Your task to perform on an android device: turn on airplane mode Image 0: 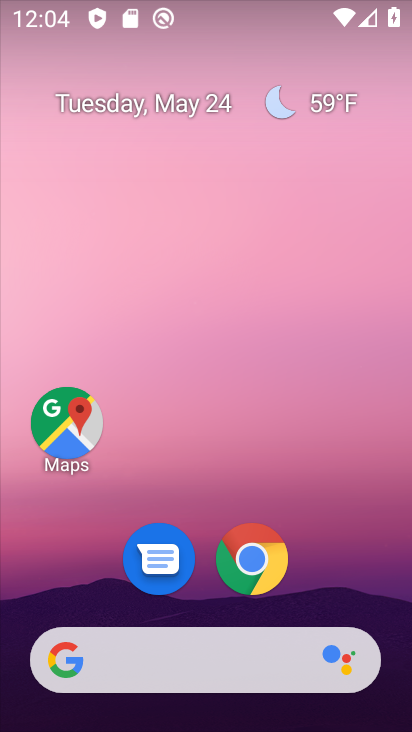
Step 0: drag from (279, 6) to (314, 603)
Your task to perform on an android device: turn on airplane mode Image 1: 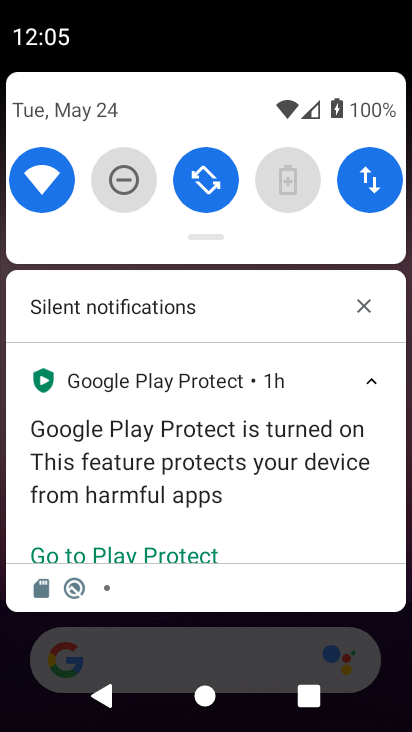
Step 1: drag from (256, 204) to (196, 675)
Your task to perform on an android device: turn on airplane mode Image 2: 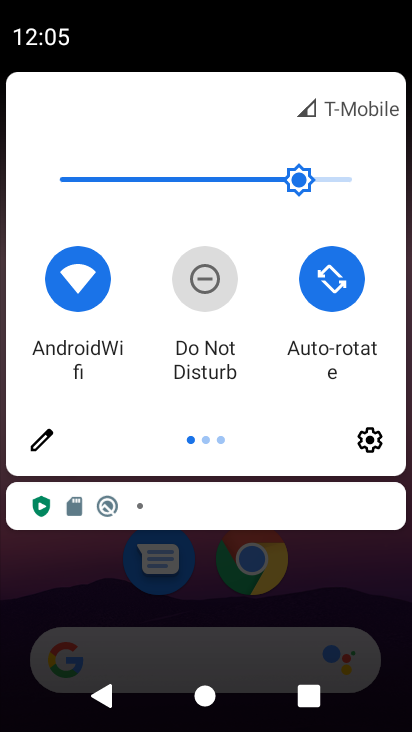
Step 2: drag from (336, 365) to (5, 345)
Your task to perform on an android device: turn on airplane mode Image 3: 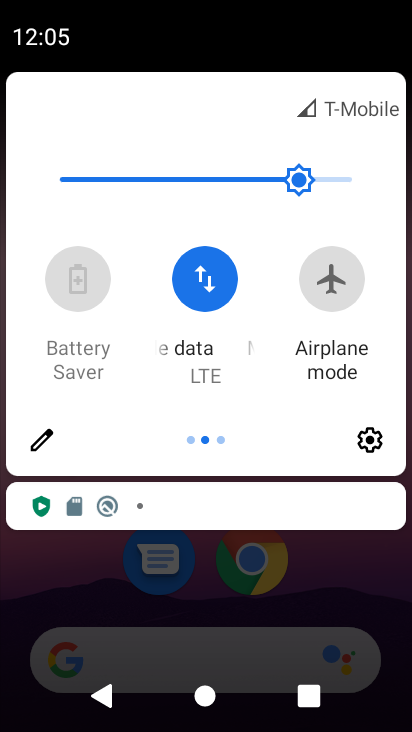
Step 3: click (324, 288)
Your task to perform on an android device: turn on airplane mode Image 4: 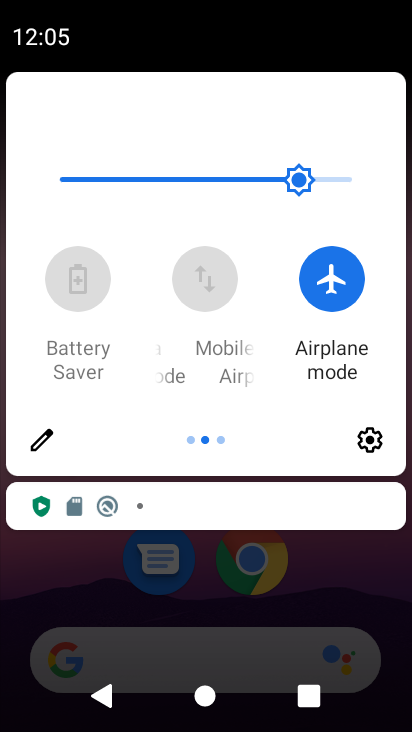
Step 4: task complete